Your task to perform on an android device: install app "Venmo" Image 0: 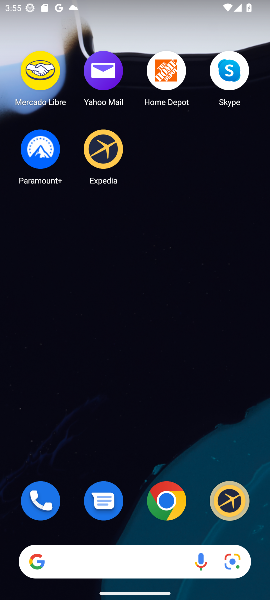
Step 0: press home button
Your task to perform on an android device: install app "Venmo" Image 1: 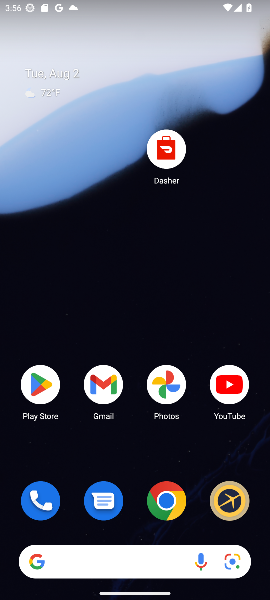
Step 1: click (40, 390)
Your task to perform on an android device: install app "Venmo" Image 2: 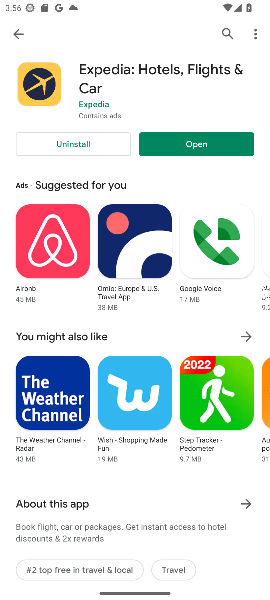
Step 2: click (230, 36)
Your task to perform on an android device: install app "Venmo" Image 3: 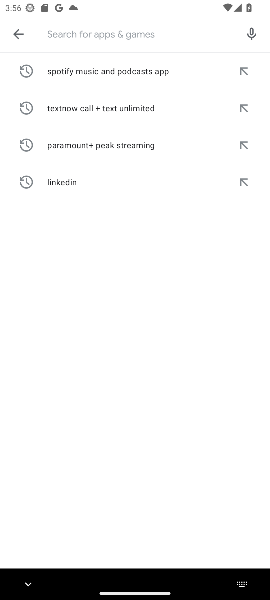
Step 3: type "Venmo"
Your task to perform on an android device: install app "Venmo" Image 4: 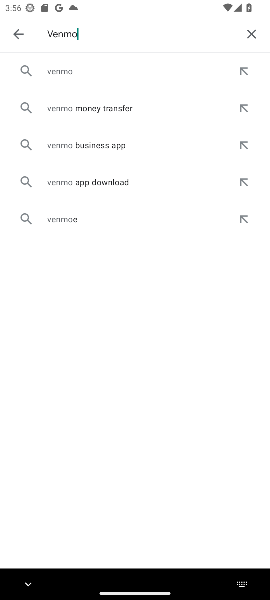
Step 4: click (62, 74)
Your task to perform on an android device: install app "Venmo" Image 5: 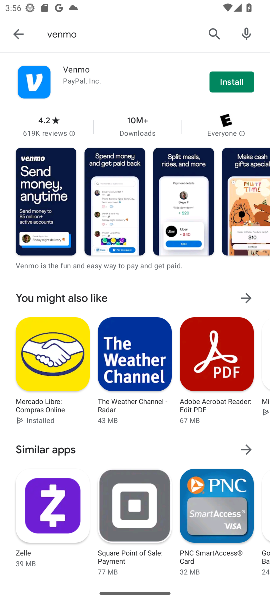
Step 5: click (232, 82)
Your task to perform on an android device: install app "Venmo" Image 6: 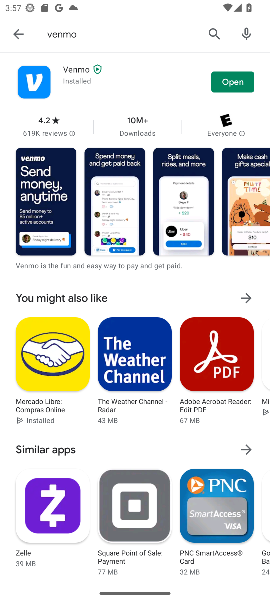
Step 6: task complete